Your task to perform on an android device: Open the calendar and show me this week's events? Image 0: 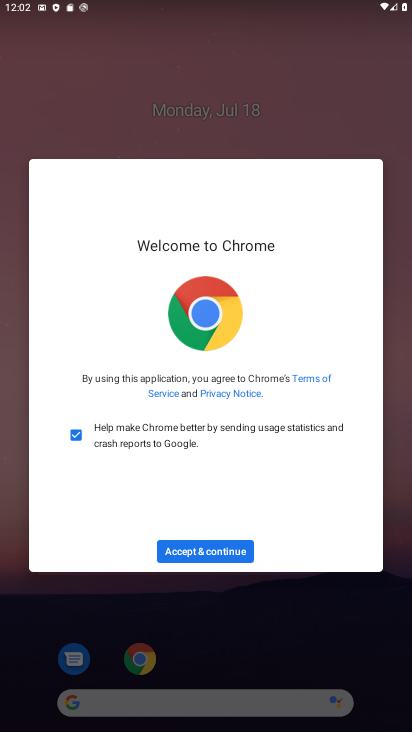
Step 0: click (188, 551)
Your task to perform on an android device: Open the calendar and show me this week's events? Image 1: 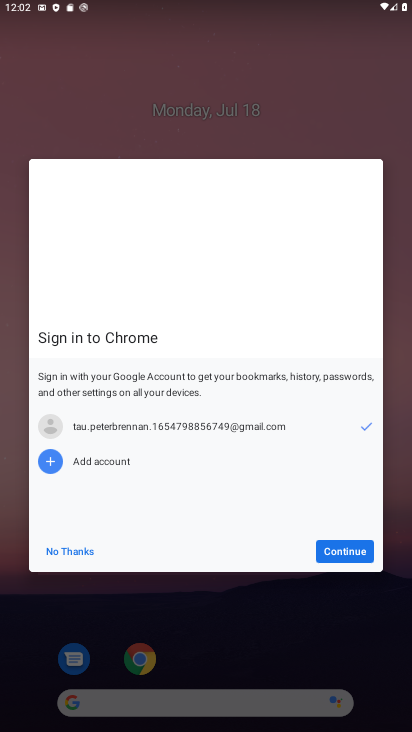
Step 1: press home button
Your task to perform on an android device: Open the calendar and show me this week's events? Image 2: 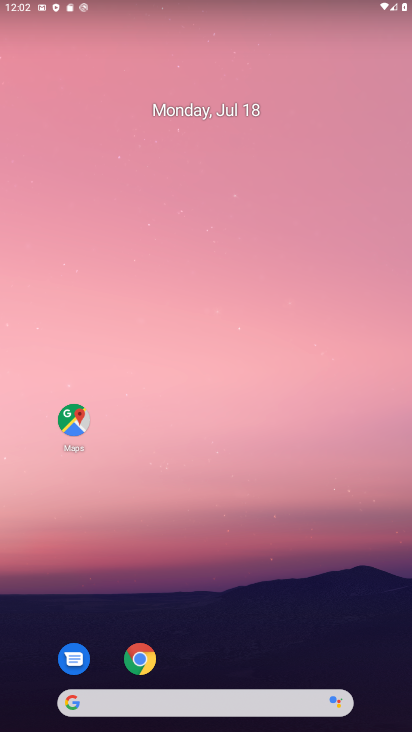
Step 2: drag from (219, 666) to (109, 12)
Your task to perform on an android device: Open the calendar and show me this week's events? Image 3: 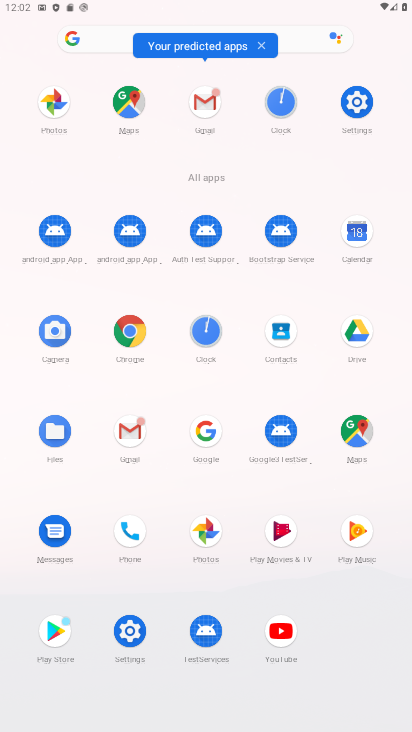
Step 3: click (360, 246)
Your task to perform on an android device: Open the calendar and show me this week's events? Image 4: 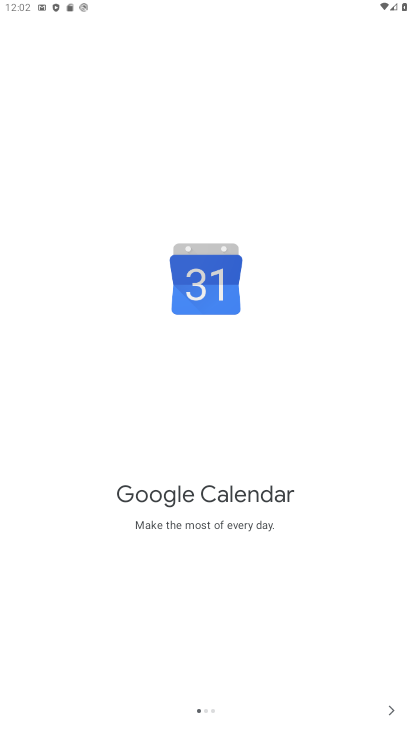
Step 4: click (389, 707)
Your task to perform on an android device: Open the calendar and show me this week's events? Image 5: 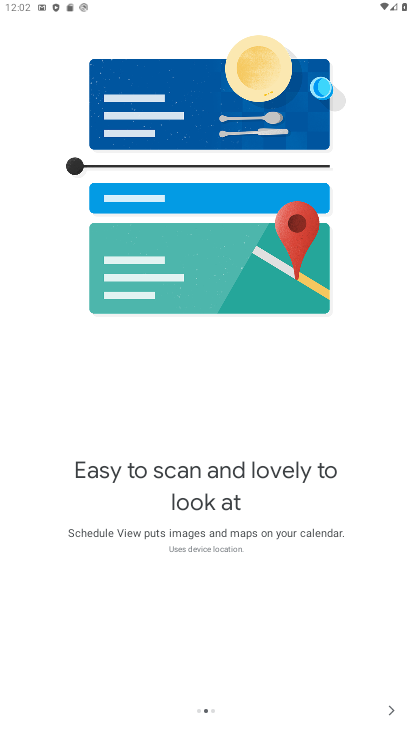
Step 5: click (387, 708)
Your task to perform on an android device: Open the calendar and show me this week's events? Image 6: 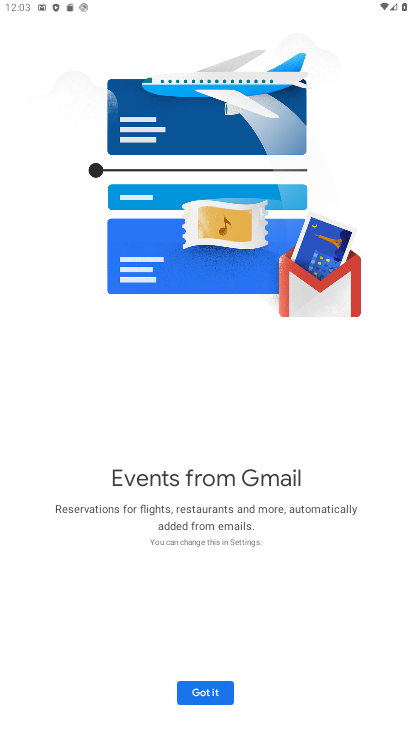
Step 6: click (223, 698)
Your task to perform on an android device: Open the calendar and show me this week's events? Image 7: 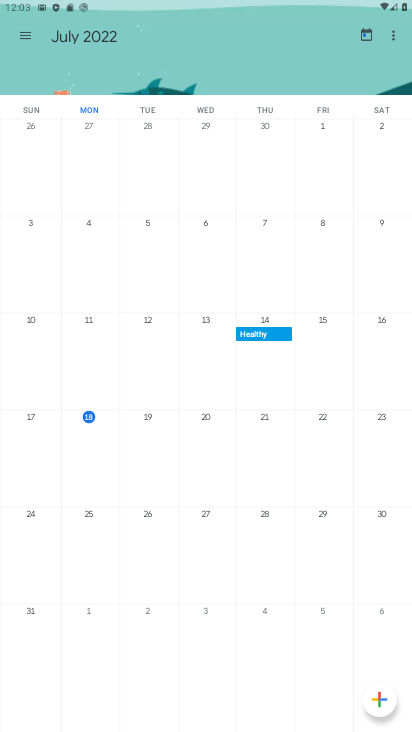
Step 7: click (24, 26)
Your task to perform on an android device: Open the calendar and show me this week's events? Image 8: 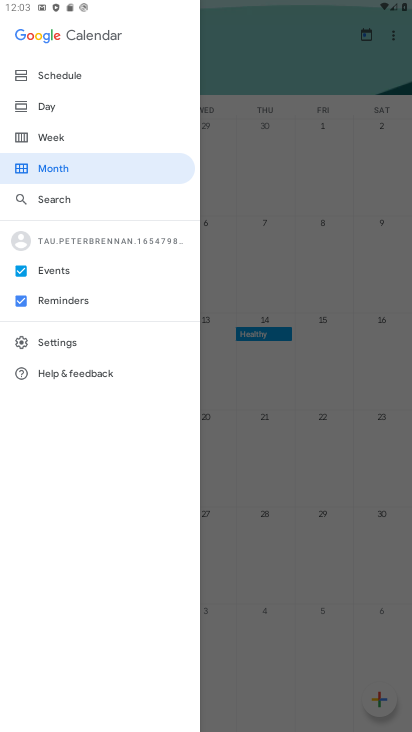
Step 8: click (55, 300)
Your task to perform on an android device: Open the calendar and show me this week's events? Image 9: 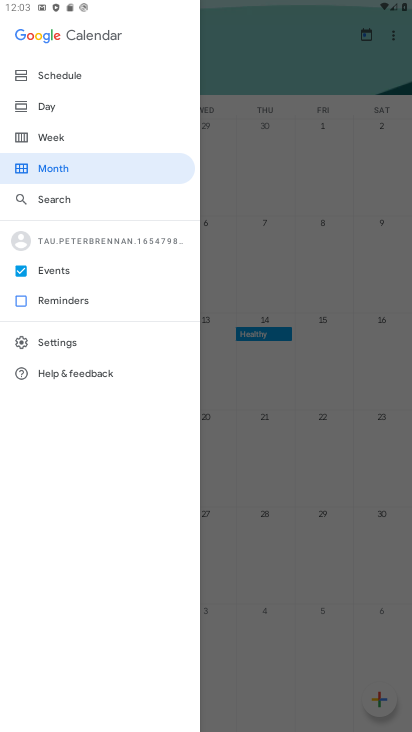
Step 9: click (54, 132)
Your task to perform on an android device: Open the calendar and show me this week's events? Image 10: 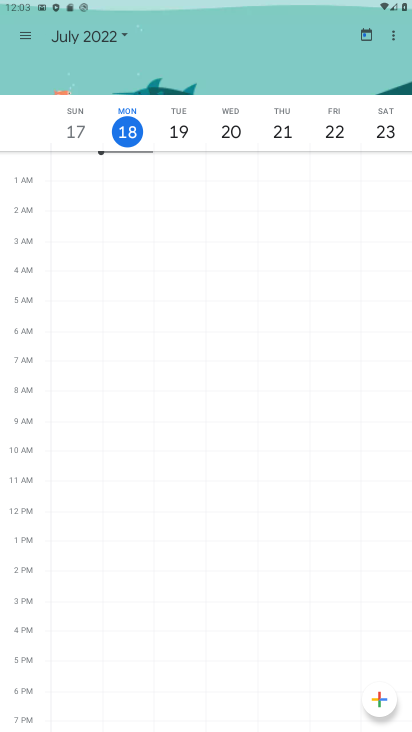
Step 10: task complete